Your task to perform on an android device: delete a single message in the gmail app Image 0: 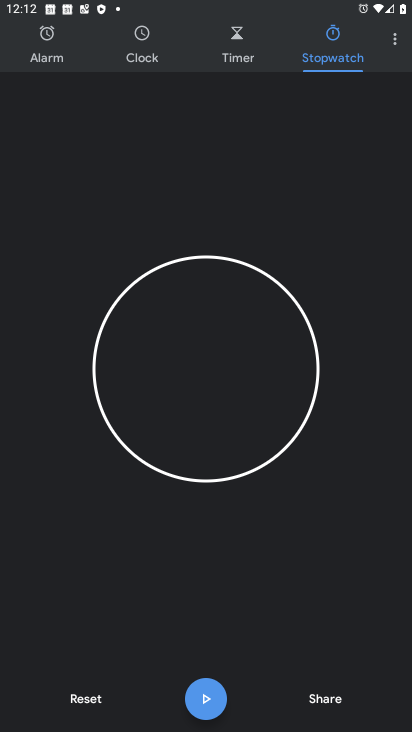
Step 0: press home button
Your task to perform on an android device: delete a single message in the gmail app Image 1: 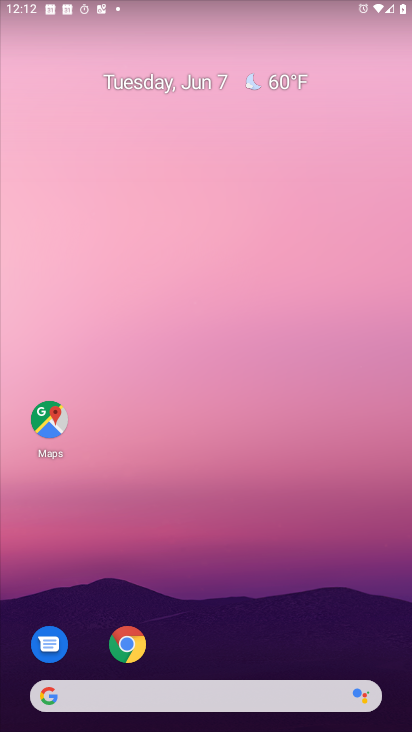
Step 1: drag from (139, 730) to (141, 50)
Your task to perform on an android device: delete a single message in the gmail app Image 2: 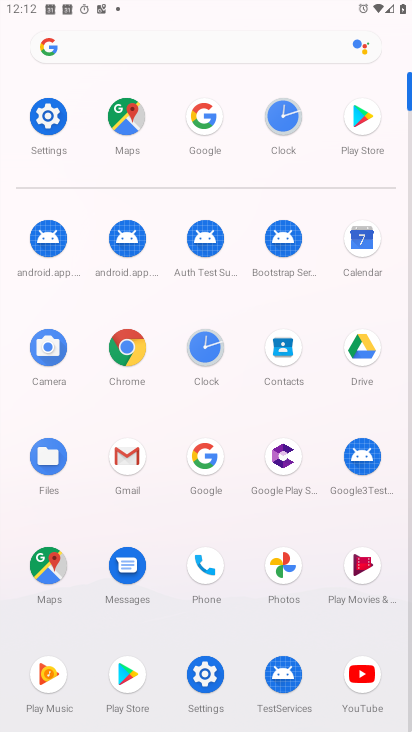
Step 2: click (127, 462)
Your task to perform on an android device: delete a single message in the gmail app Image 3: 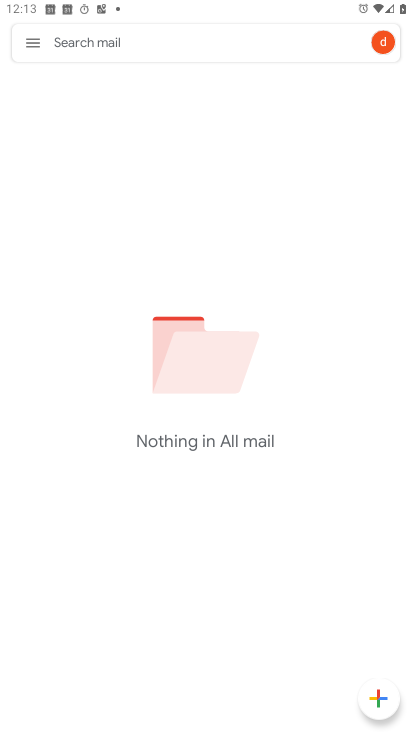
Step 3: click (23, 34)
Your task to perform on an android device: delete a single message in the gmail app Image 4: 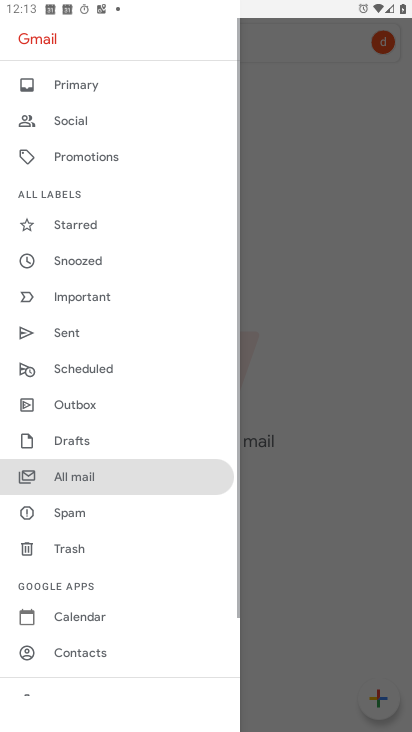
Step 4: click (96, 90)
Your task to perform on an android device: delete a single message in the gmail app Image 5: 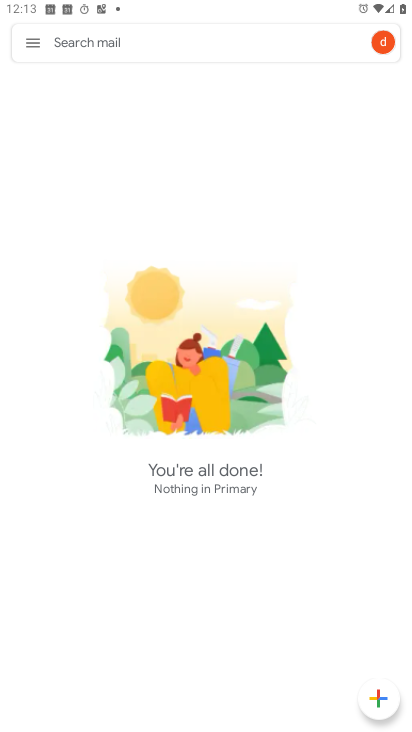
Step 5: click (32, 47)
Your task to perform on an android device: delete a single message in the gmail app Image 6: 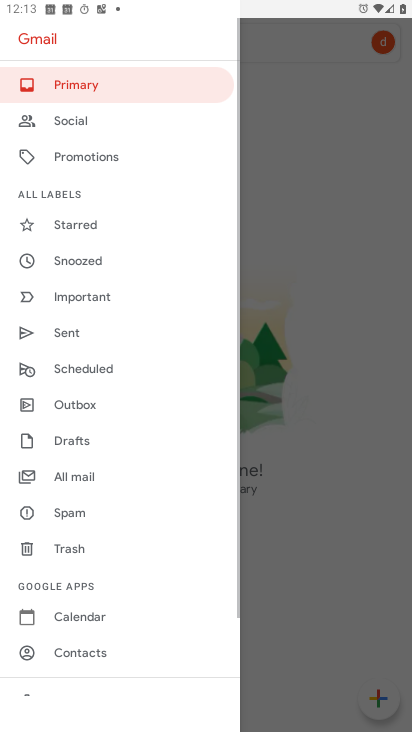
Step 6: click (53, 480)
Your task to perform on an android device: delete a single message in the gmail app Image 7: 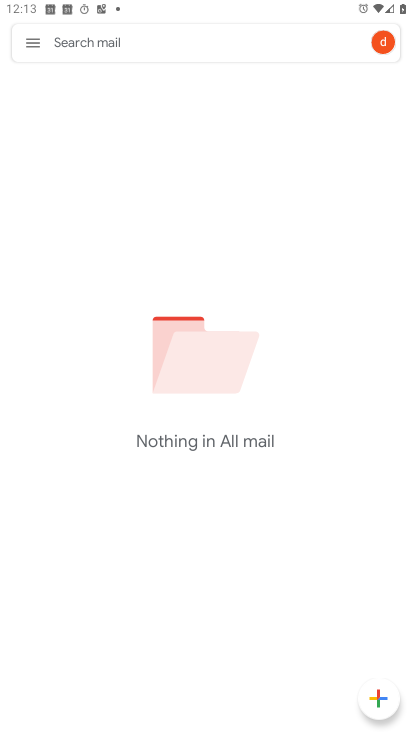
Step 7: task complete